Your task to perform on an android device: install app "Walmart Shopping & Grocery" Image 0: 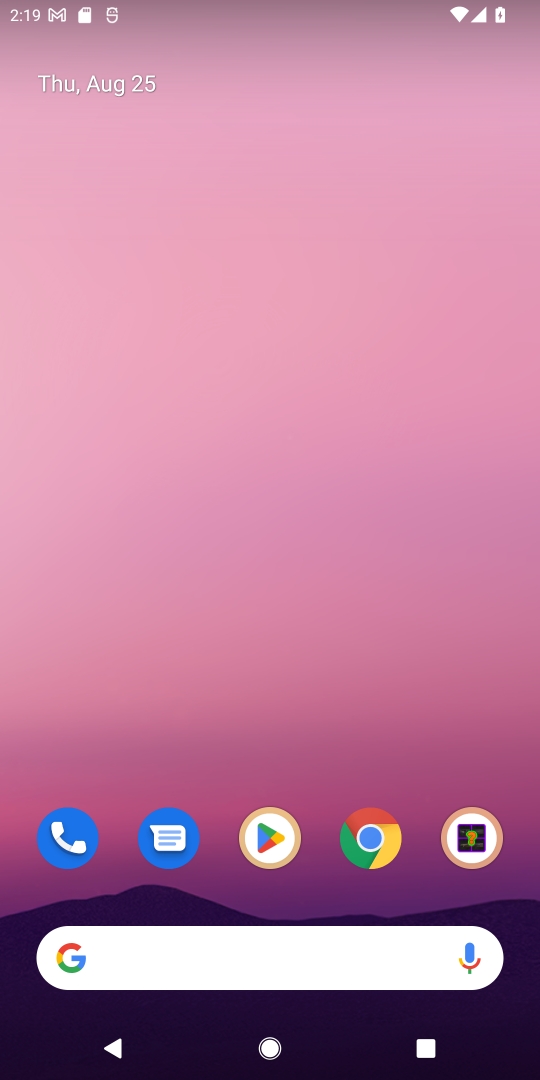
Step 0: click (269, 839)
Your task to perform on an android device: install app "Walmart Shopping & Grocery" Image 1: 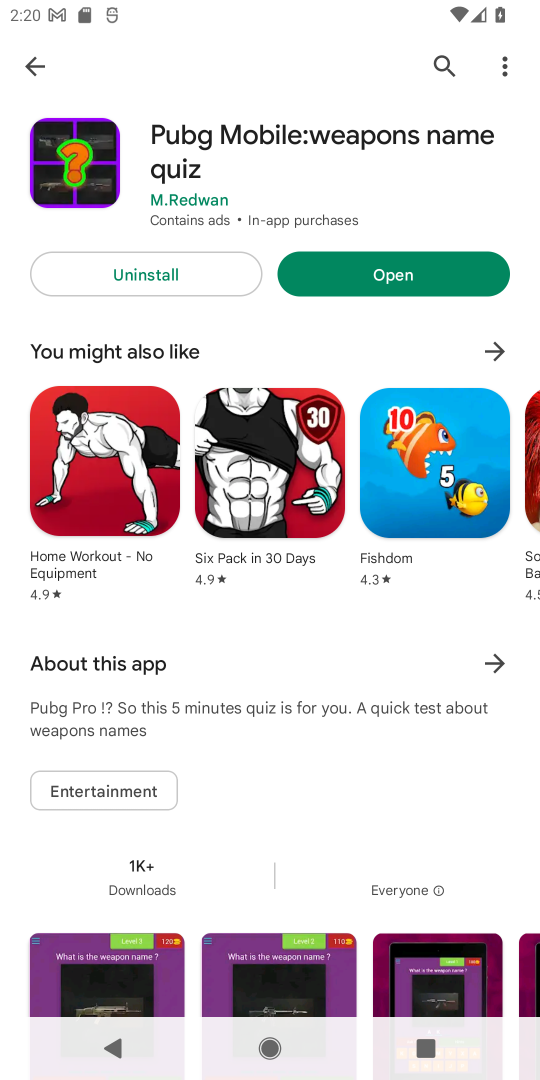
Step 1: click (33, 63)
Your task to perform on an android device: install app "Walmart Shopping & Grocery" Image 2: 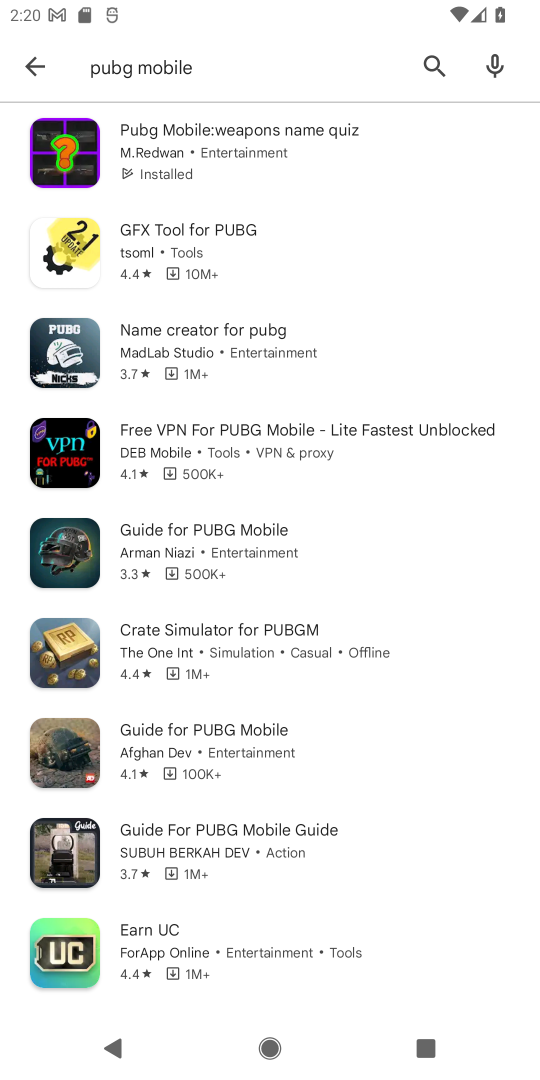
Step 2: click (33, 63)
Your task to perform on an android device: install app "Walmart Shopping & Grocery" Image 3: 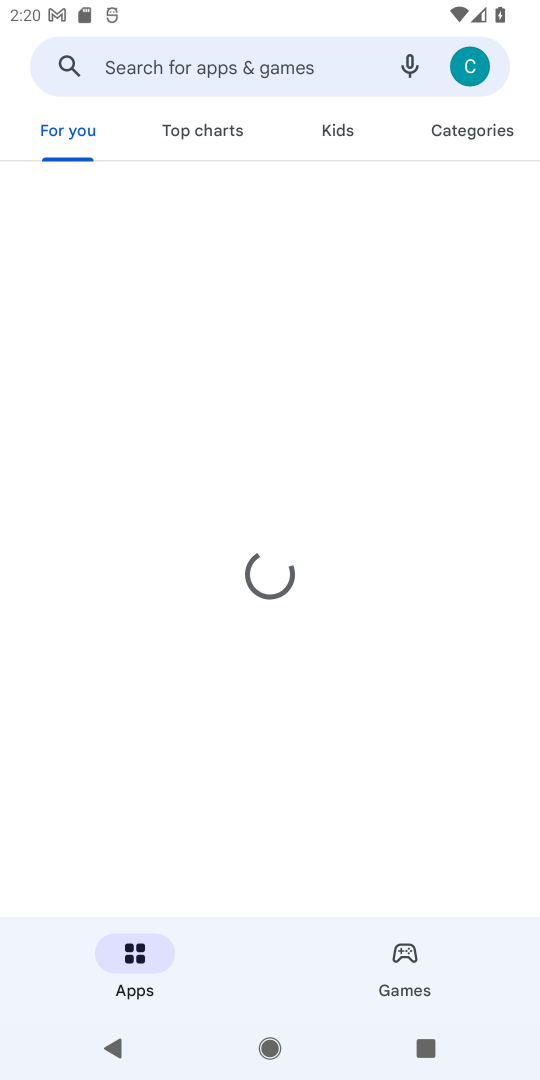
Step 3: click (261, 71)
Your task to perform on an android device: install app "Walmart Shopping & Grocery" Image 4: 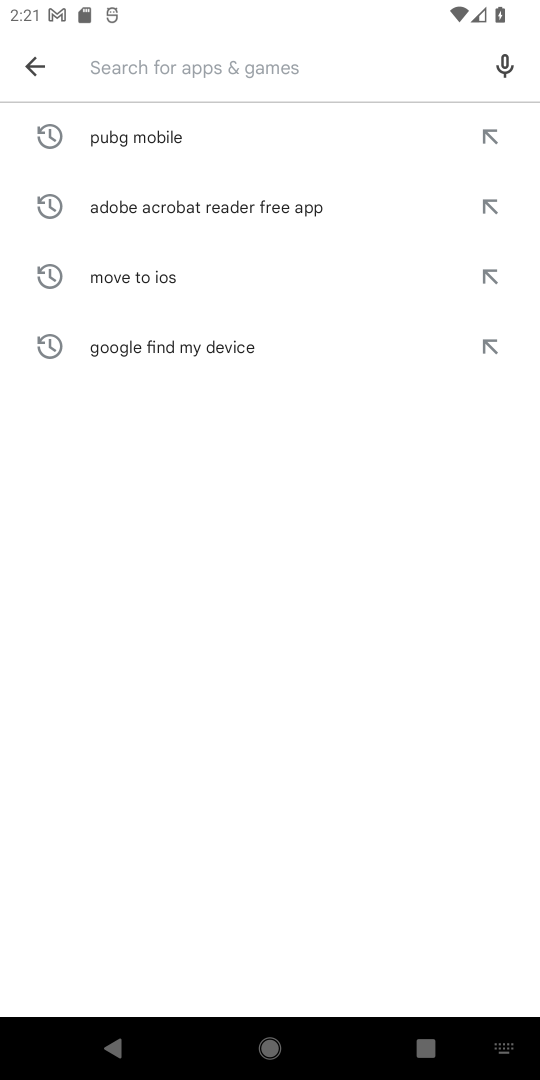
Step 4: type "Walmart Shopping & Grocery"
Your task to perform on an android device: install app "Walmart Shopping & Grocery" Image 5: 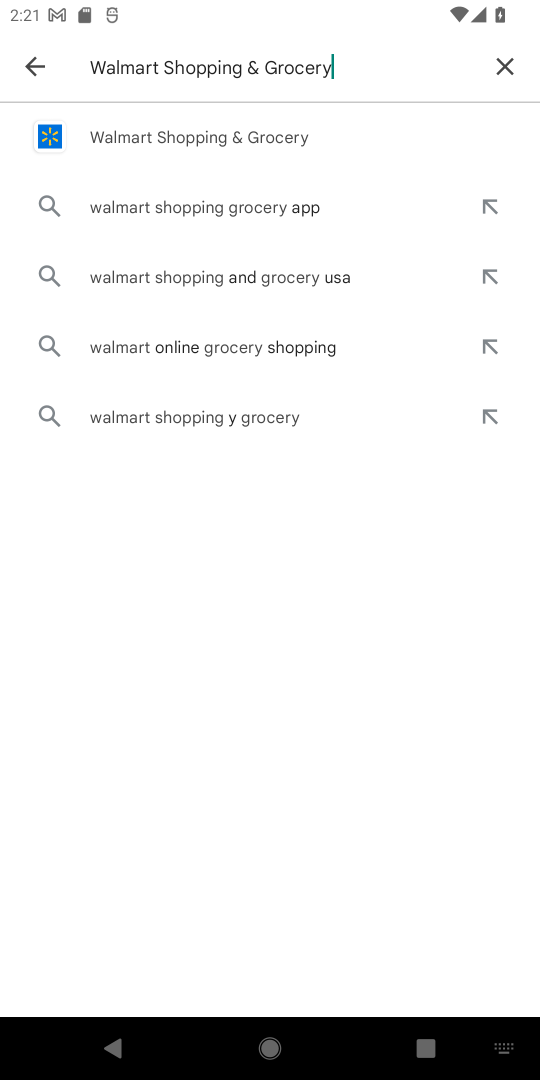
Step 5: click (222, 125)
Your task to perform on an android device: install app "Walmart Shopping & Grocery" Image 6: 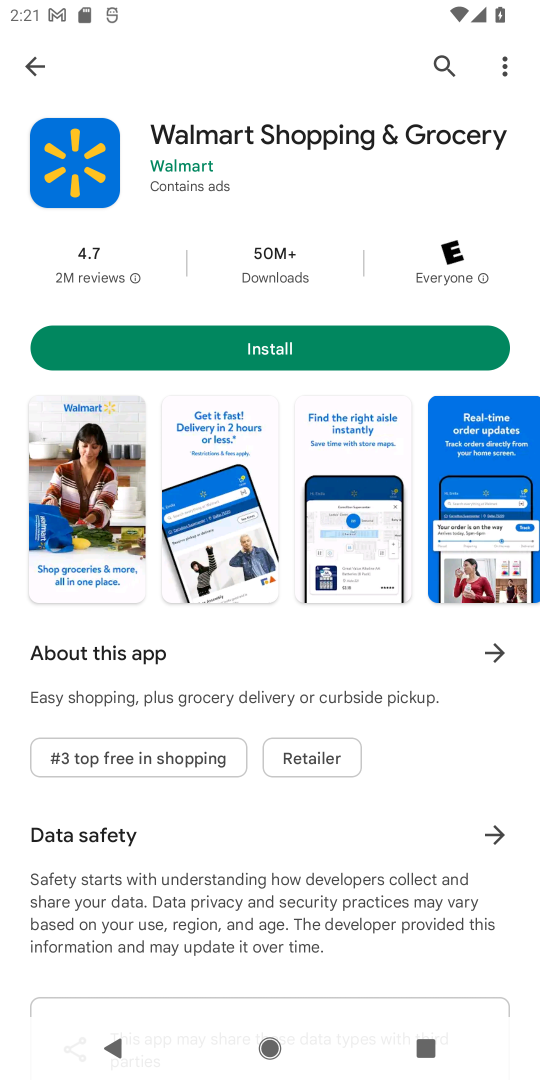
Step 6: click (257, 348)
Your task to perform on an android device: install app "Walmart Shopping & Grocery" Image 7: 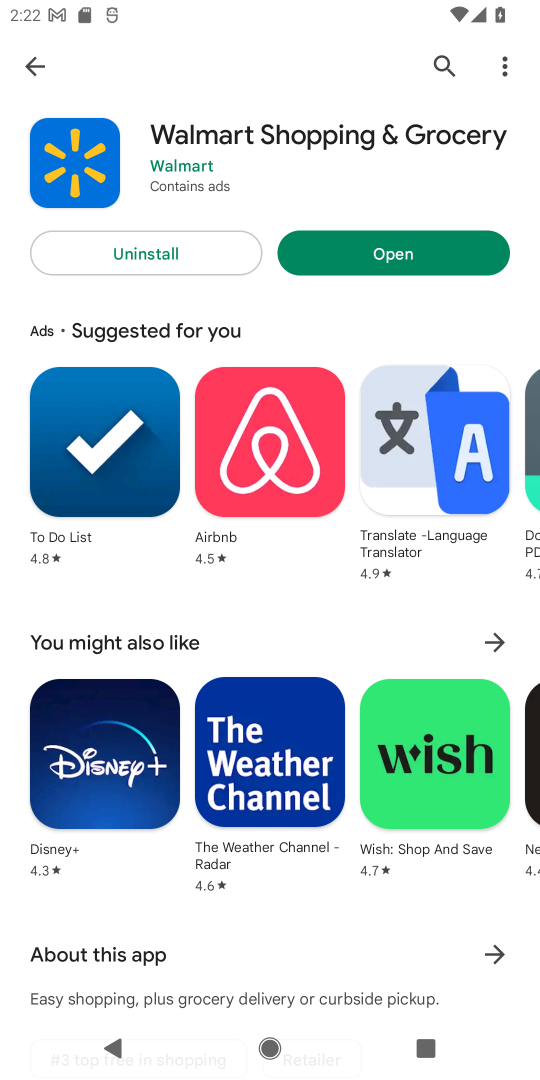
Step 7: click (375, 257)
Your task to perform on an android device: install app "Walmart Shopping & Grocery" Image 8: 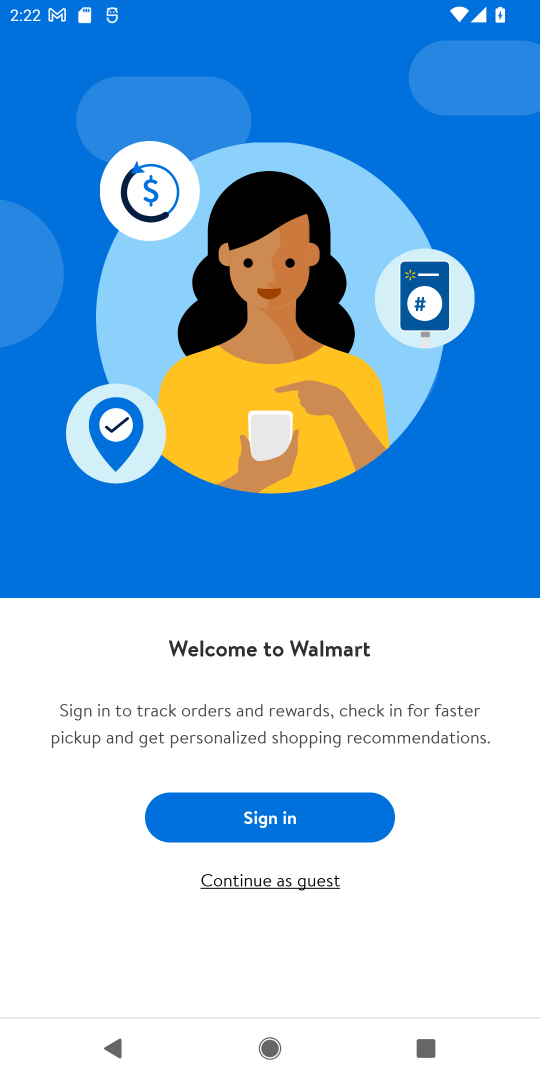
Step 8: task complete